Your task to perform on an android device: find snoozed emails in the gmail app Image 0: 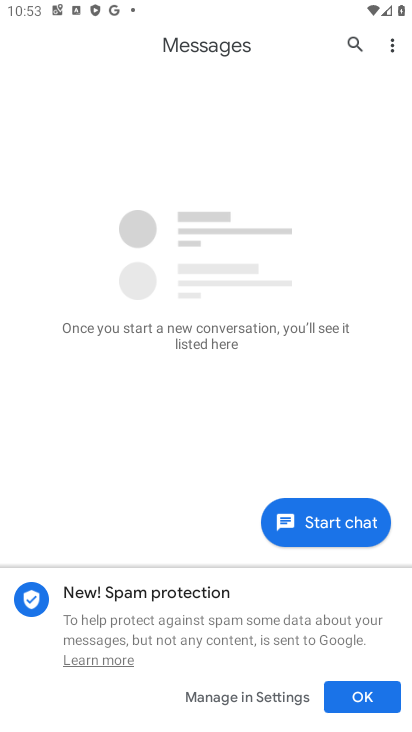
Step 0: press home button
Your task to perform on an android device: find snoozed emails in the gmail app Image 1: 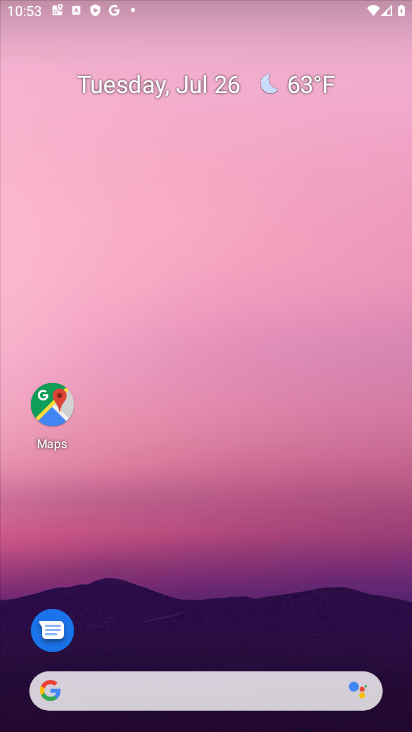
Step 1: drag from (280, 570) to (280, 187)
Your task to perform on an android device: find snoozed emails in the gmail app Image 2: 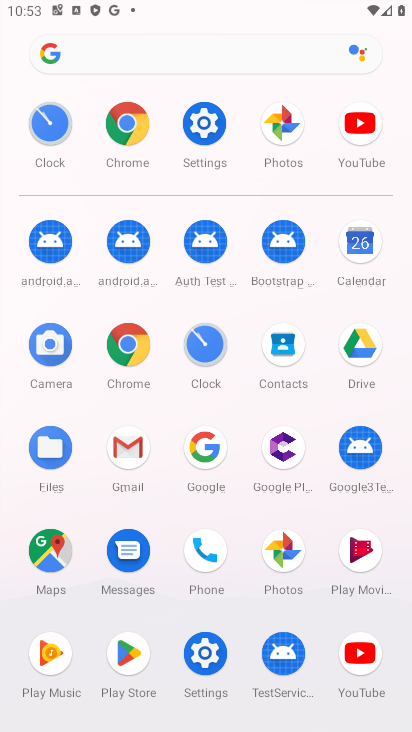
Step 2: click (122, 465)
Your task to perform on an android device: find snoozed emails in the gmail app Image 3: 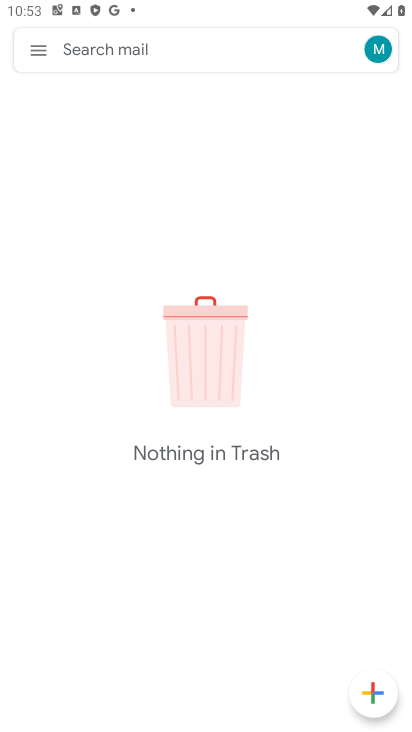
Step 3: click (55, 39)
Your task to perform on an android device: find snoozed emails in the gmail app Image 4: 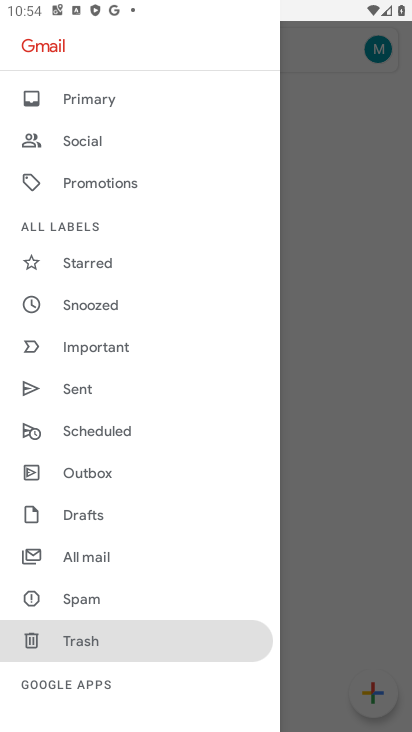
Step 4: click (102, 302)
Your task to perform on an android device: find snoozed emails in the gmail app Image 5: 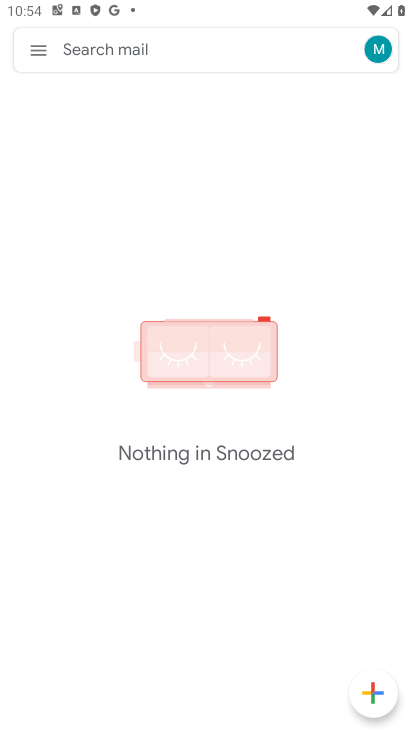
Step 5: task complete